Your task to perform on an android device: Open Maps and search for coffee Image 0: 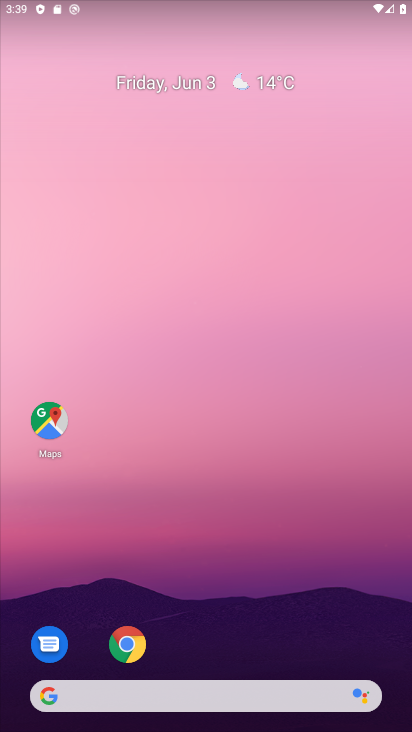
Step 0: click (126, 642)
Your task to perform on an android device: Open Maps and search for coffee Image 1: 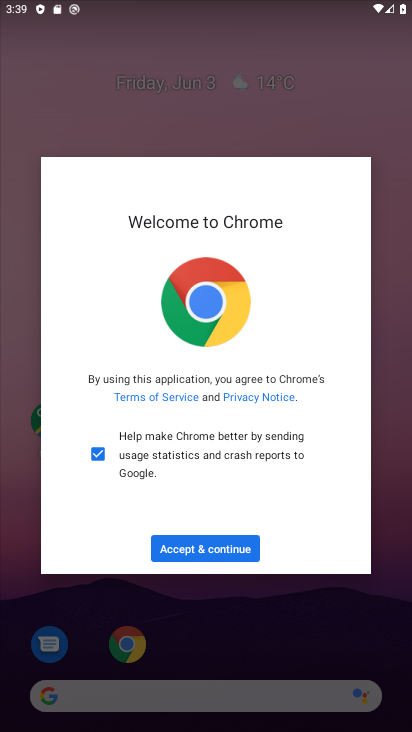
Step 1: click (226, 555)
Your task to perform on an android device: Open Maps and search for coffee Image 2: 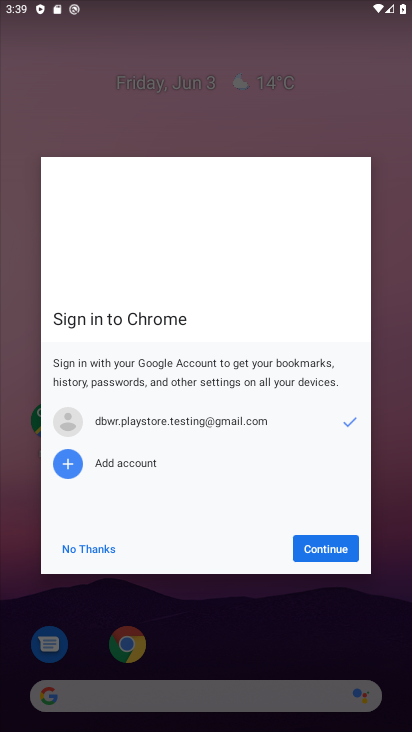
Step 2: click (290, 541)
Your task to perform on an android device: Open Maps and search for coffee Image 3: 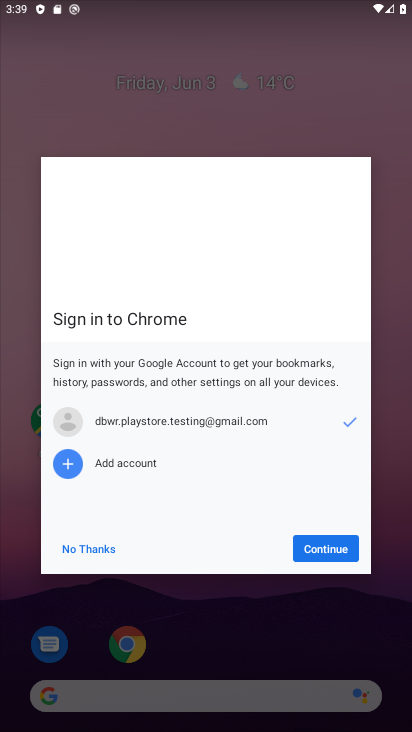
Step 3: click (296, 542)
Your task to perform on an android device: Open Maps and search for coffee Image 4: 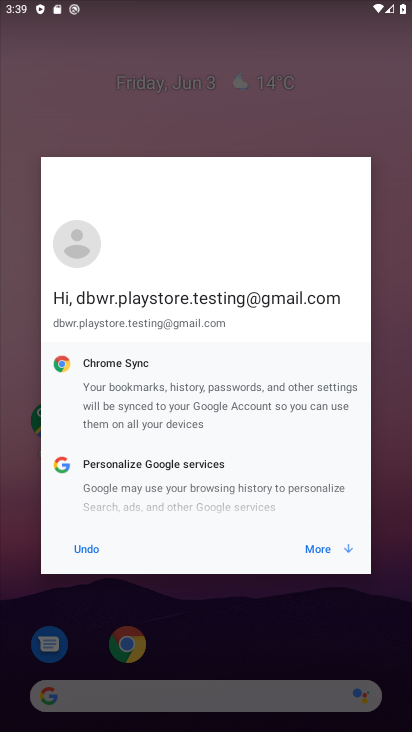
Step 4: click (336, 550)
Your task to perform on an android device: Open Maps and search for coffee Image 5: 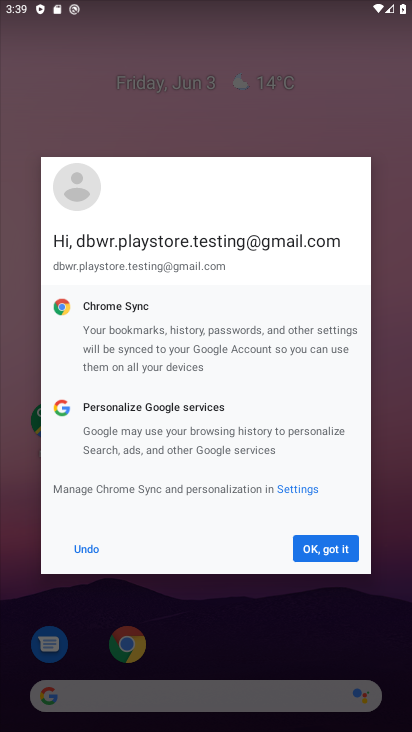
Step 5: click (336, 550)
Your task to perform on an android device: Open Maps and search for coffee Image 6: 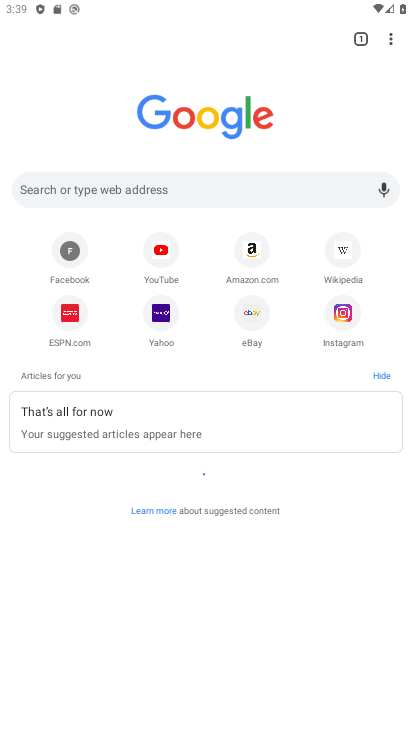
Step 6: click (177, 184)
Your task to perform on an android device: Open Maps and search for coffee Image 7: 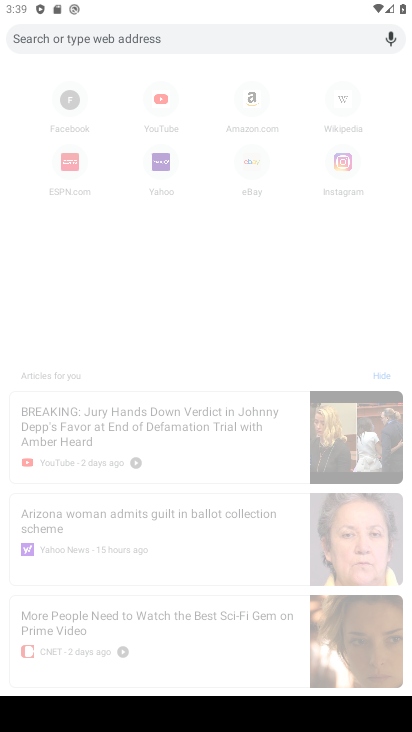
Step 7: type "coffee"
Your task to perform on an android device: Open Maps and search for coffee Image 8: 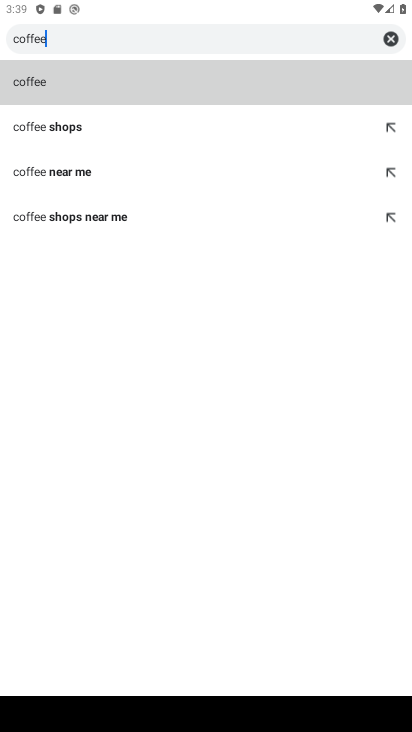
Step 8: type ""
Your task to perform on an android device: Open Maps and search for coffee Image 9: 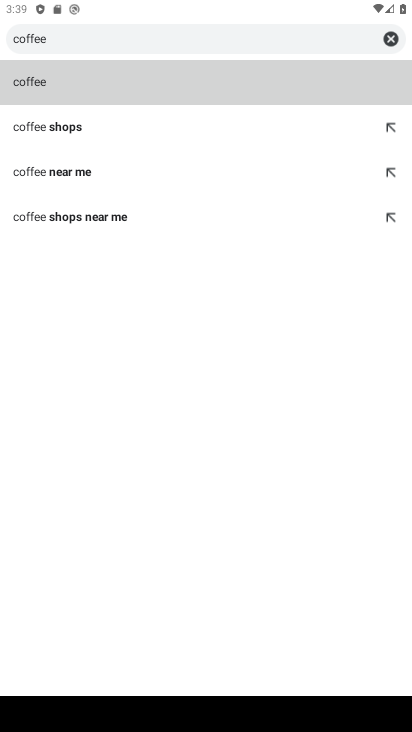
Step 9: click (89, 100)
Your task to perform on an android device: Open Maps and search for coffee Image 10: 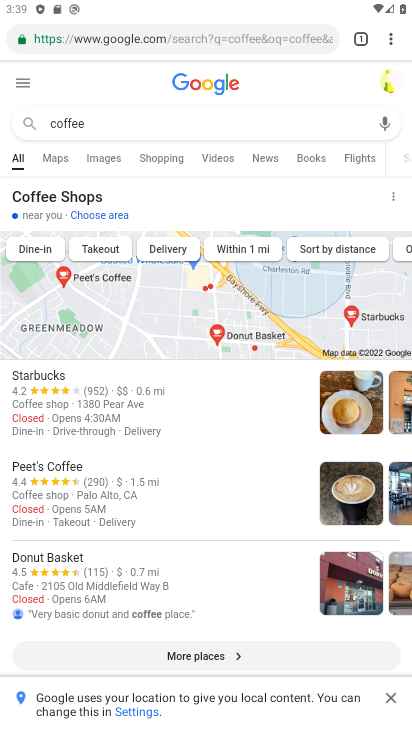
Step 10: task complete